Your task to perform on an android device: Go to Reddit.com Image 0: 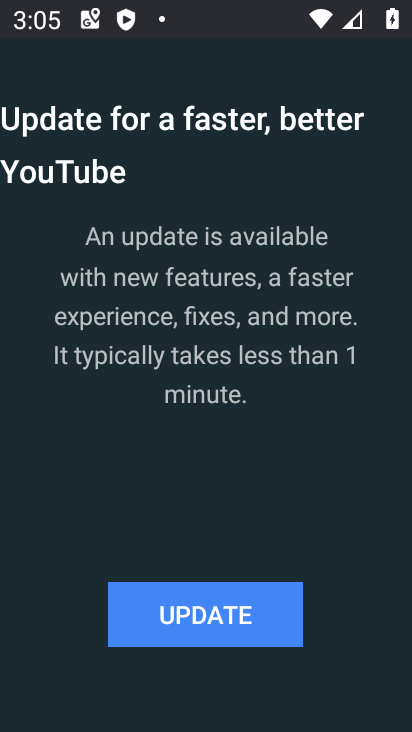
Step 0: press back button
Your task to perform on an android device: Go to Reddit.com Image 1: 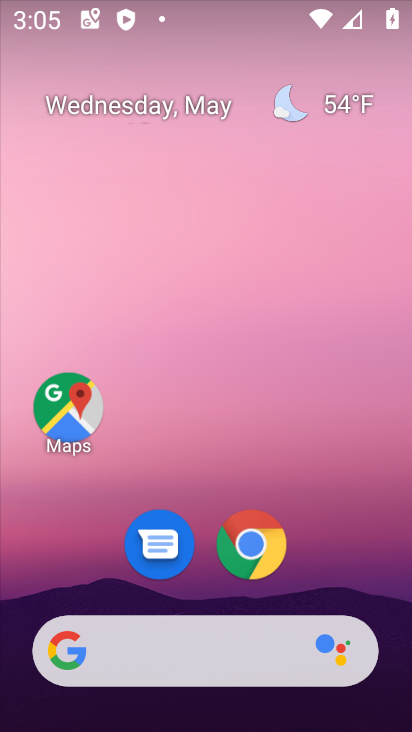
Step 1: click (237, 544)
Your task to perform on an android device: Go to Reddit.com Image 2: 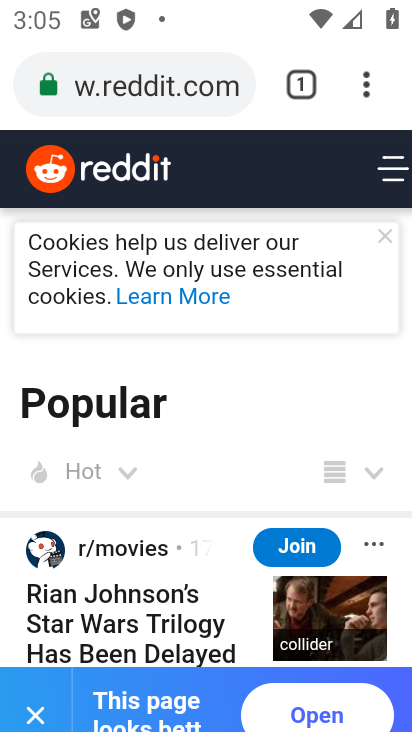
Step 2: task complete